Your task to perform on an android device: Go to Reddit.com Image 0: 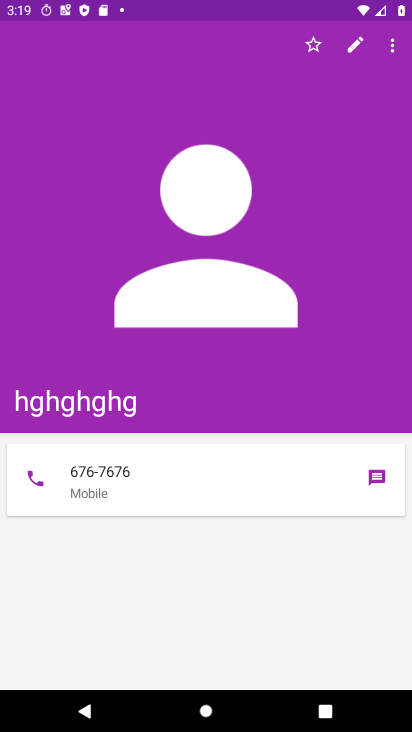
Step 0: press home button
Your task to perform on an android device: Go to Reddit.com Image 1: 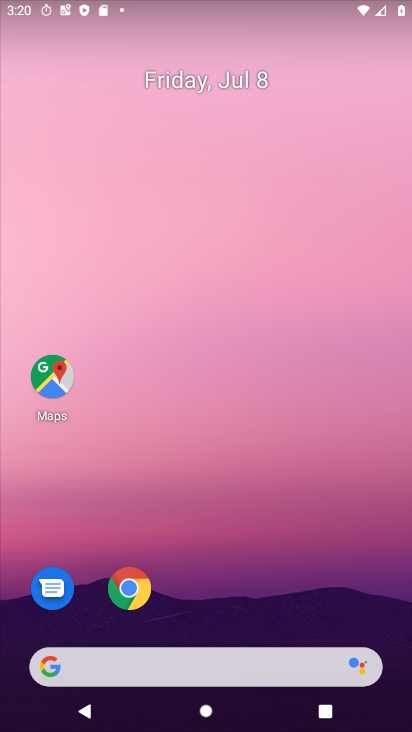
Step 1: click (41, 674)
Your task to perform on an android device: Go to Reddit.com Image 2: 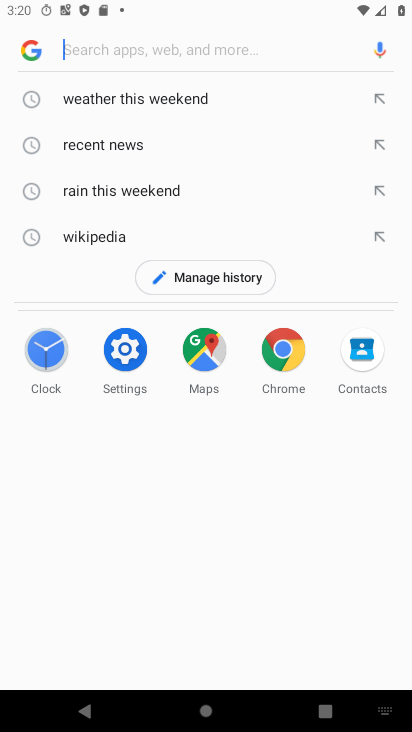
Step 2: type "Reddit.com"
Your task to perform on an android device: Go to Reddit.com Image 3: 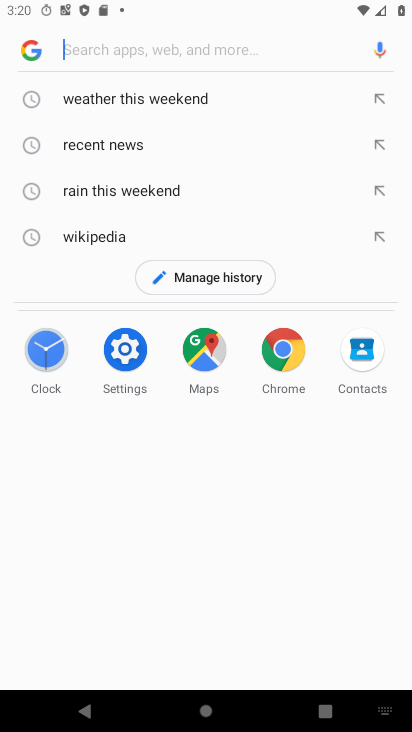
Step 3: click (182, 48)
Your task to perform on an android device: Go to Reddit.com Image 4: 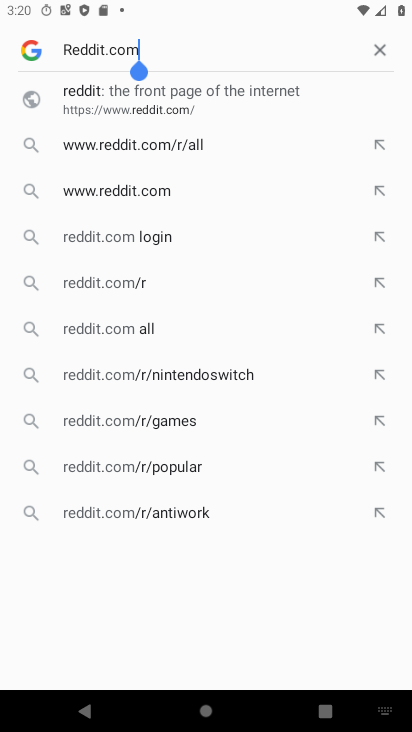
Step 4: click (114, 98)
Your task to perform on an android device: Go to Reddit.com Image 5: 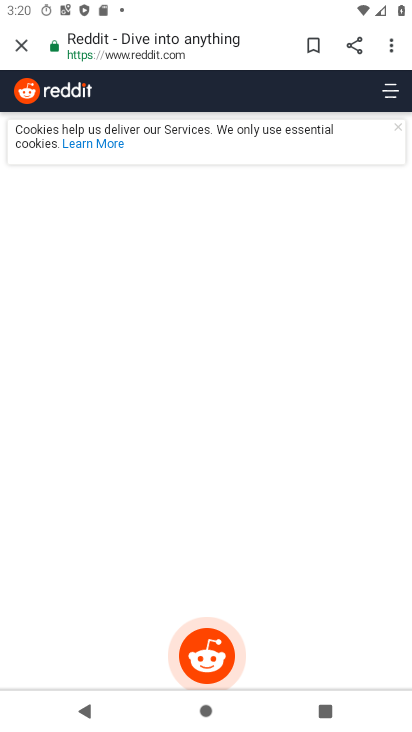
Step 5: task complete